Your task to perform on an android device: turn on the 24-hour format for clock Image 0: 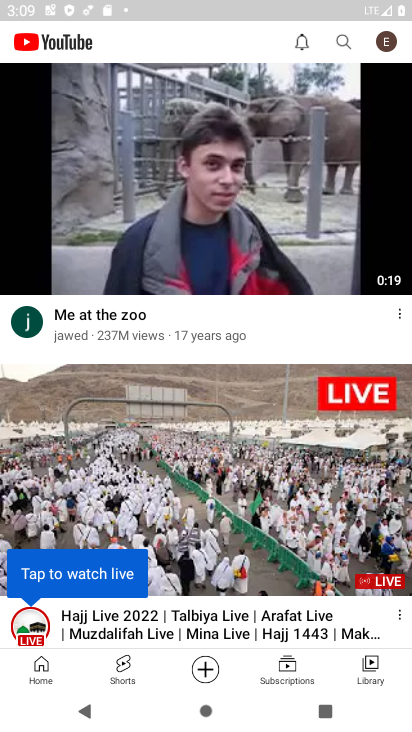
Step 0: press home button
Your task to perform on an android device: turn on the 24-hour format for clock Image 1: 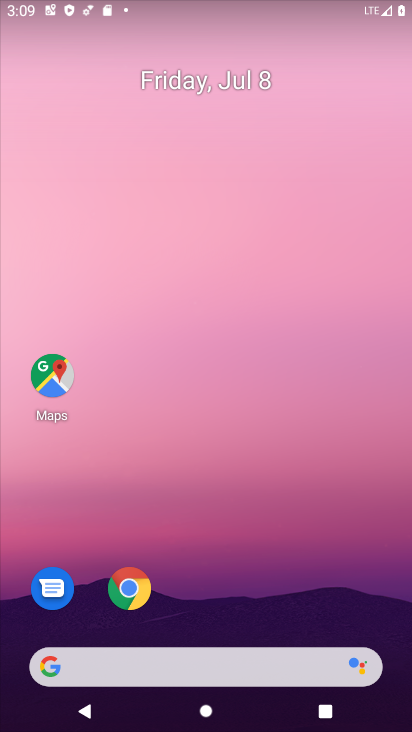
Step 1: drag from (235, 651) to (304, 225)
Your task to perform on an android device: turn on the 24-hour format for clock Image 2: 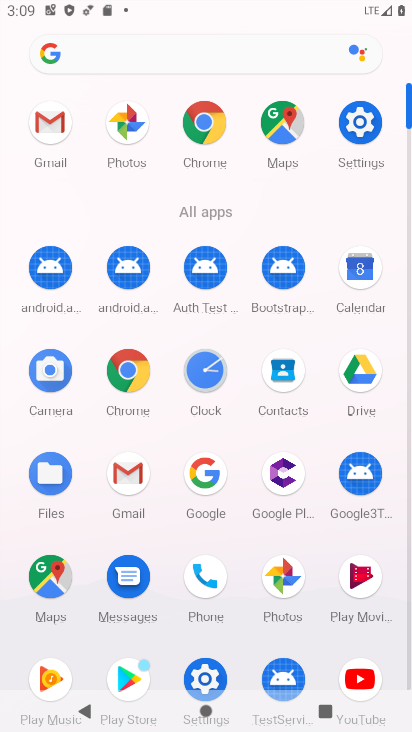
Step 2: click (197, 371)
Your task to perform on an android device: turn on the 24-hour format for clock Image 3: 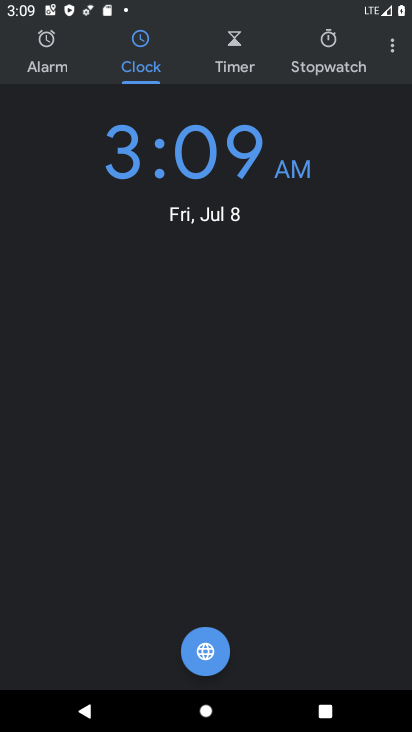
Step 3: click (395, 45)
Your task to perform on an android device: turn on the 24-hour format for clock Image 4: 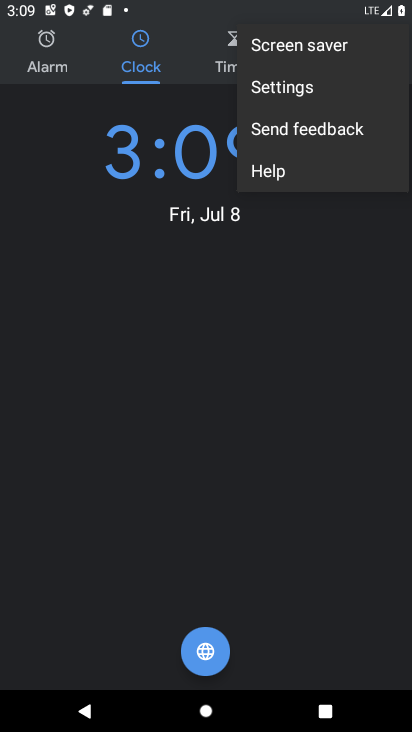
Step 4: click (291, 89)
Your task to perform on an android device: turn on the 24-hour format for clock Image 5: 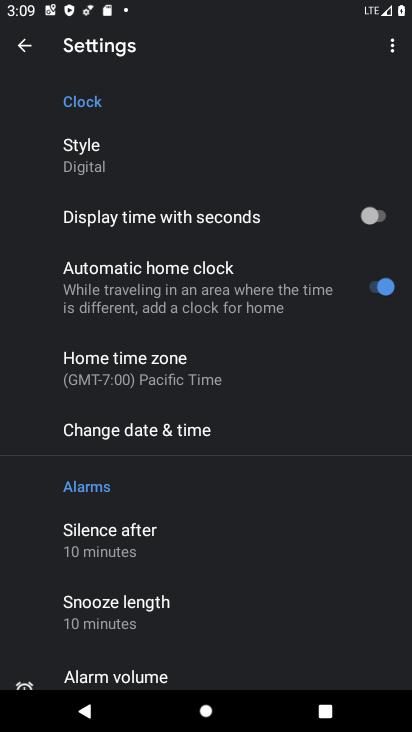
Step 5: click (182, 431)
Your task to perform on an android device: turn on the 24-hour format for clock Image 6: 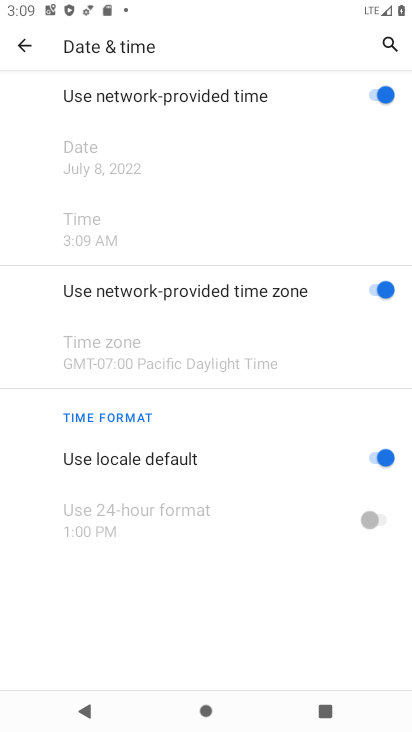
Step 6: click (374, 455)
Your task to perform on an android device: turn on the 24-hour format for clock Image 7: 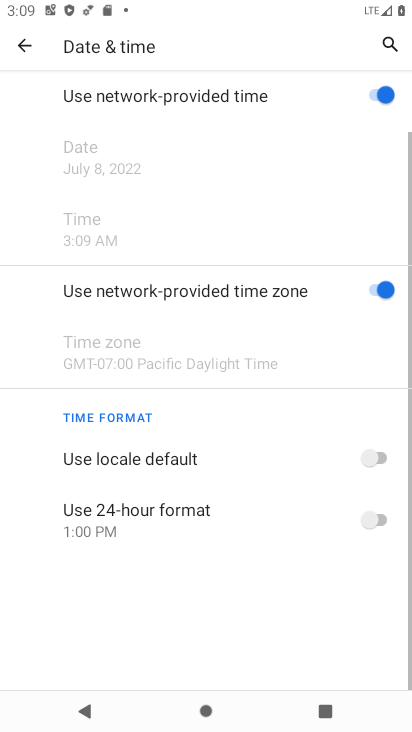
Step 7: click (387, 519)
Your task to perform on an android device: turn on the 24-hour format for clock Image 8: 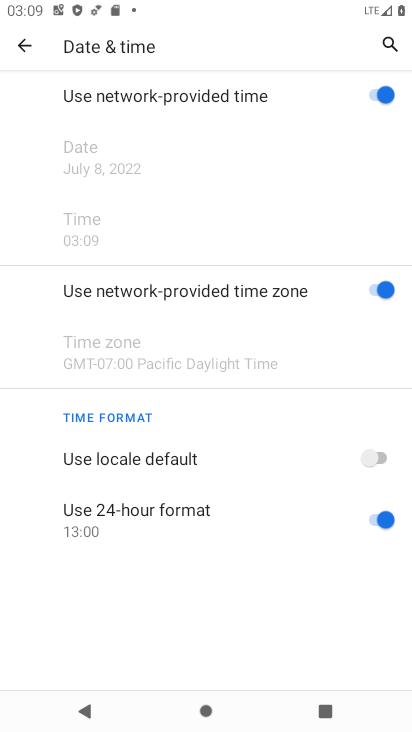
Step 8: task complete